Your task to perform on an android device: empty trash in google photos Image 0: 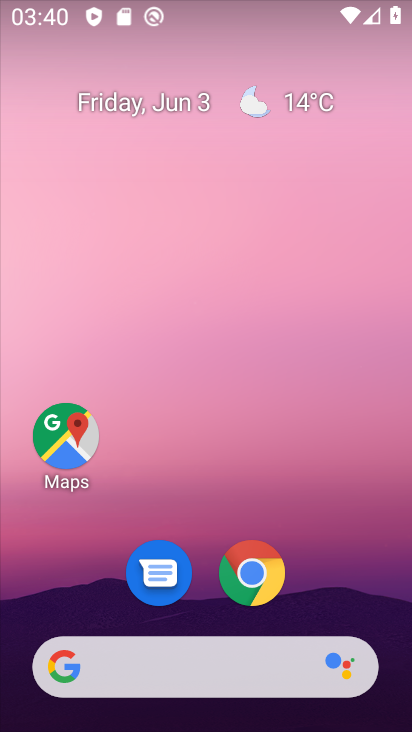
Step 0: drag from (150, 646) to (268, 13)
Your task to perform on an android device: empty trash in google photos Image 1: 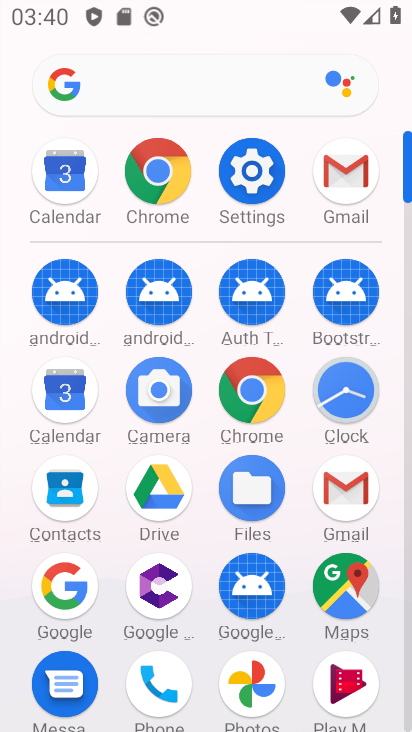
Step 1: click (250, 681)
Your task to perform on an android device: empty trash in google photos Image 2: 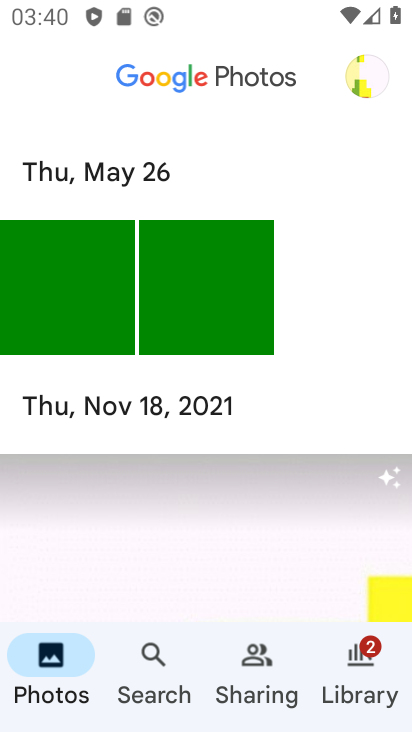
Step 2: click (361, 77)
Your task to perform on an android device: empty trash in google photos Image 3: 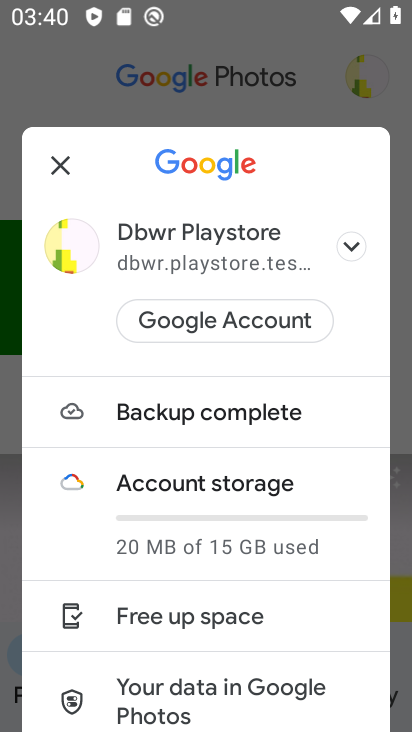
Step 3: click (59, 166)
Your task to perform on an android device: empty trash in google photos Image 4: 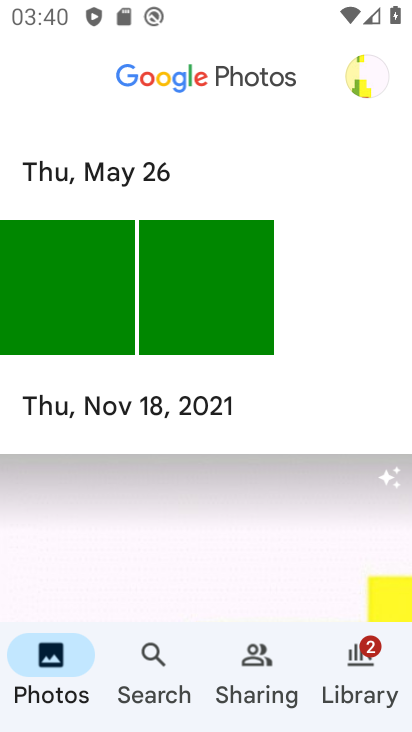
Step 4: click (376, 664)
Your task to perform on an android device: empty trash in google photos Image 5: 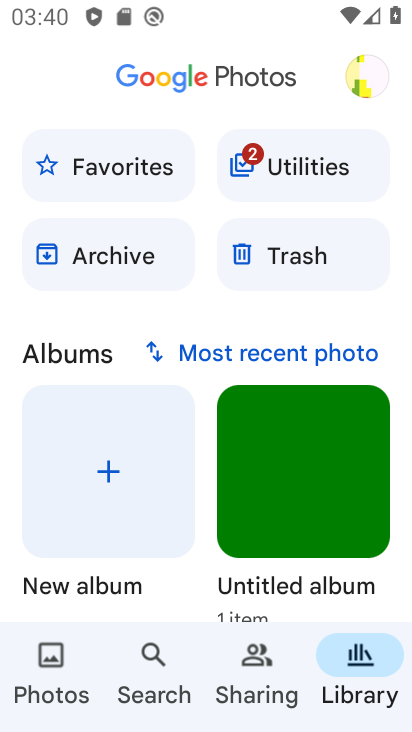
Step 5: click (354, 247)
Your task to perform on an android device: empty trash in google photos Image 6: 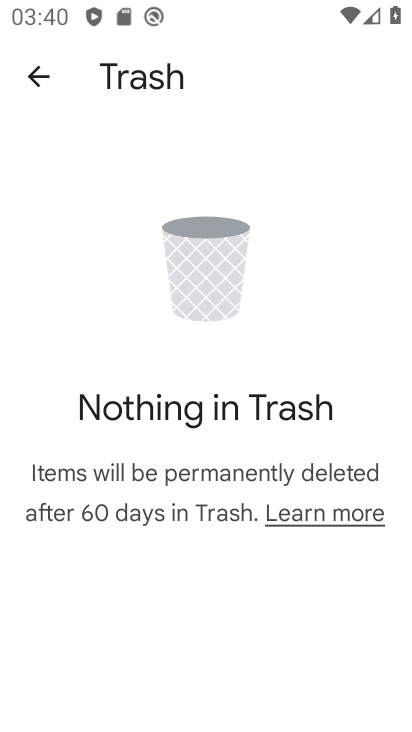
Step 6: task complete